Your task to perform on an android device: turn off location history Image 0: 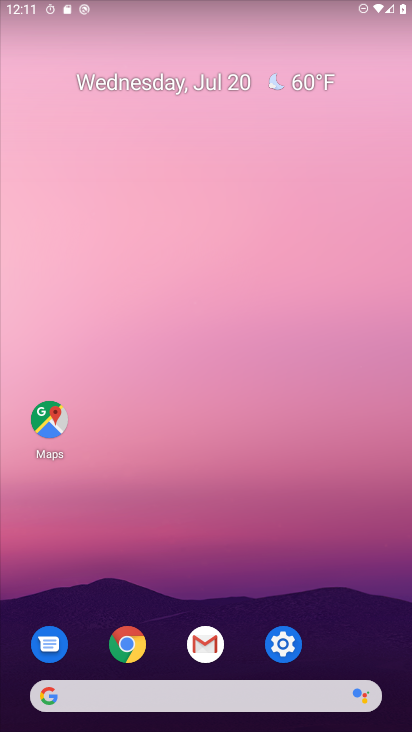
Step 0: click (277, 642)
Your task to perform on an android device: turn off location history Image 1: 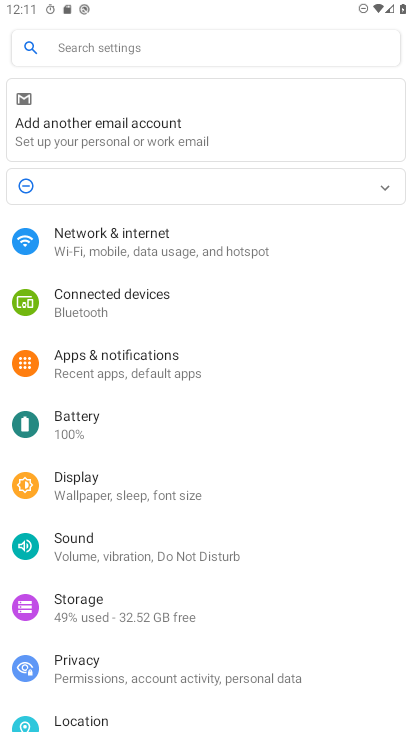
Step 1: click (102, 709)
Your task to perform on an android device: turn off location history Image 2: 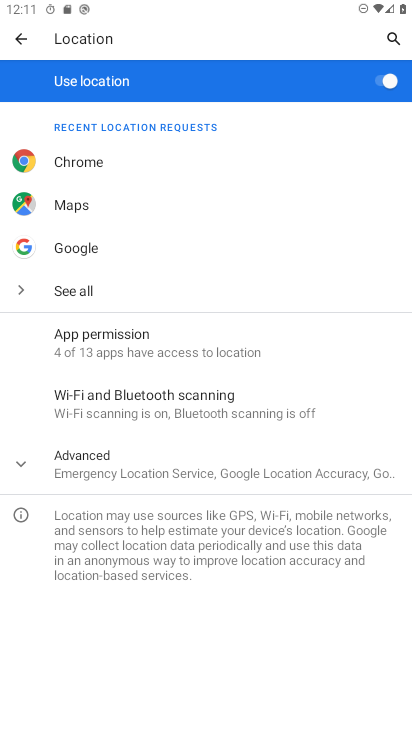
Step 2: click (34, 462)
Your task to perform on an android device: turn off location history Image 3: 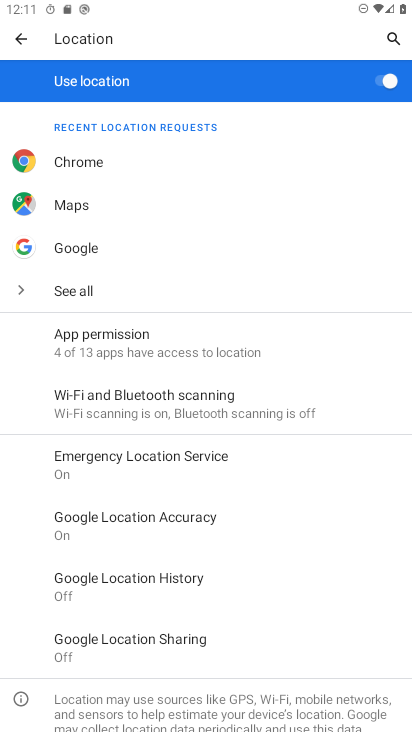
Step 3: click (147, 573)
Your task to perform on an android device: turn off location history Image 4: 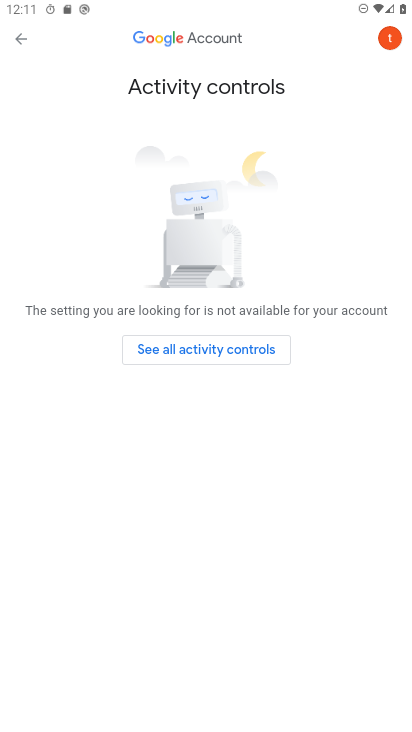
Step 4: click (160, 354)
Your task to perform on an android device: turn off location history Image 5: 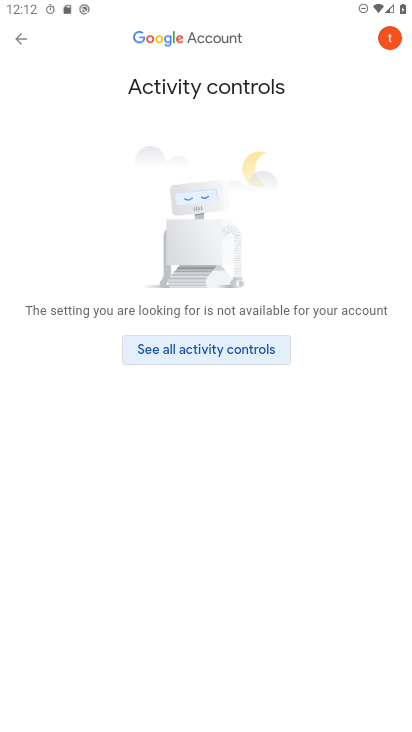
Step 5: click (161, 345)
Your task to perform on an android device: turn off location history Image 6: 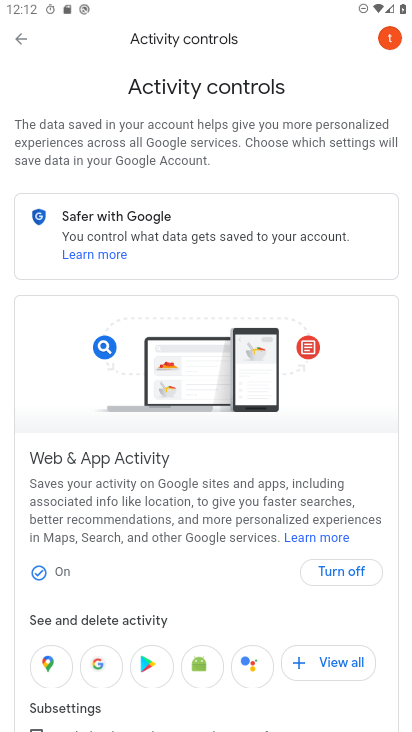
Step 6: drag from (160, 536) to (141, 357)
Your task to perform on an android device: turn off location history Image 7: 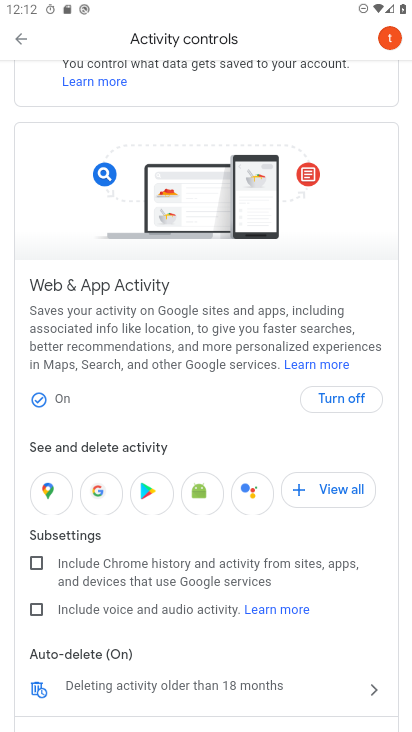
Step 7: click (349, 393)
Your task to perform on an android device: turn off location history Image 8: 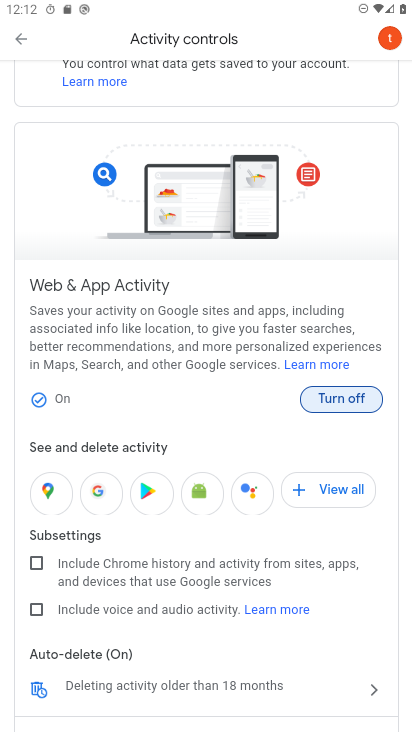
Step 8: task complete